Your task to perform on an android device: refresh tabs in the chrome app Image 0: 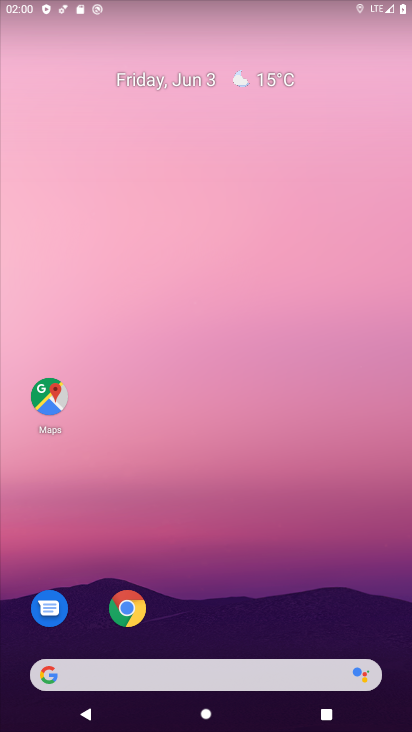
Step 0: click (134, 607)
Your task to perform on an android device: refresh tabs in the chrome app Image 1: 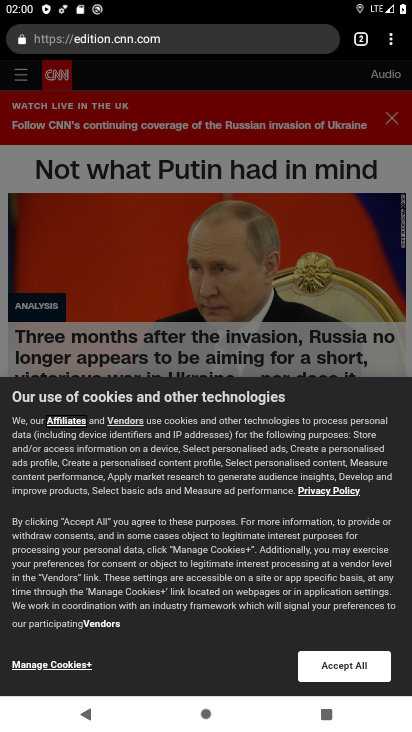
Step 1: click (396, 43)
Your task to perform on an android device: refresh tabs in the chrome app Image 2: 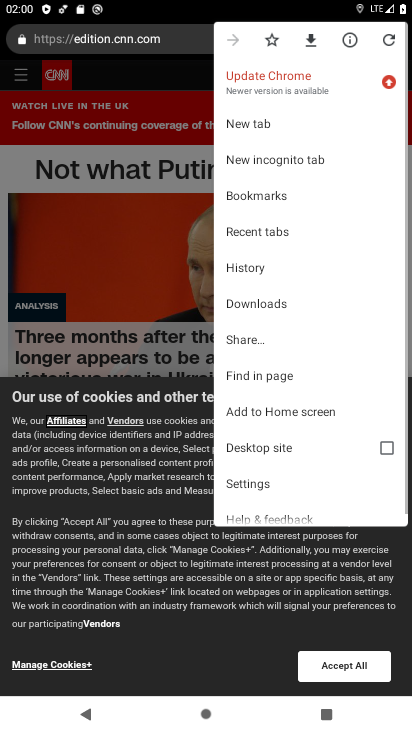
Step 2: click (396, 43)
Your task to perform on an android device: refresh tabs in the chrome app Image 3: 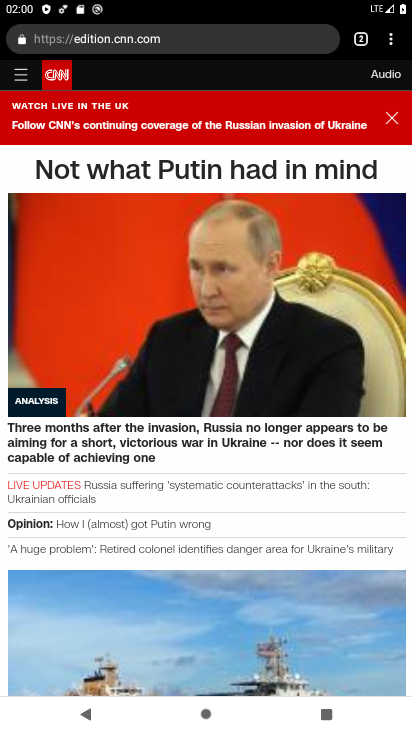
Step 3: task complete